Your task to perform on an android device: open chrome privacy settings Image 0: 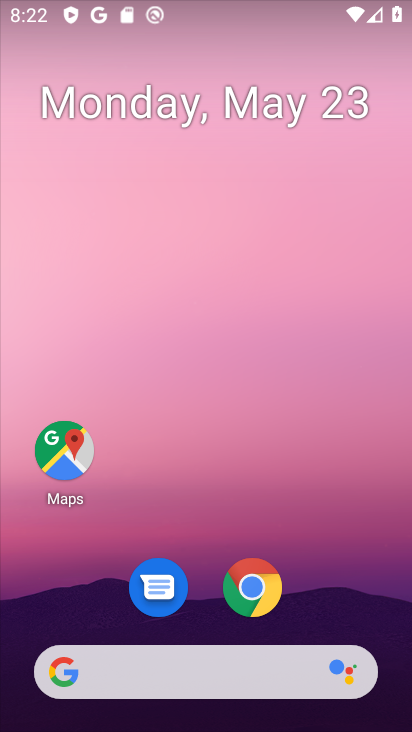
Step 0: click (301, 14)
Your task to perform on an android device: open chrome privacy settings Image 1: 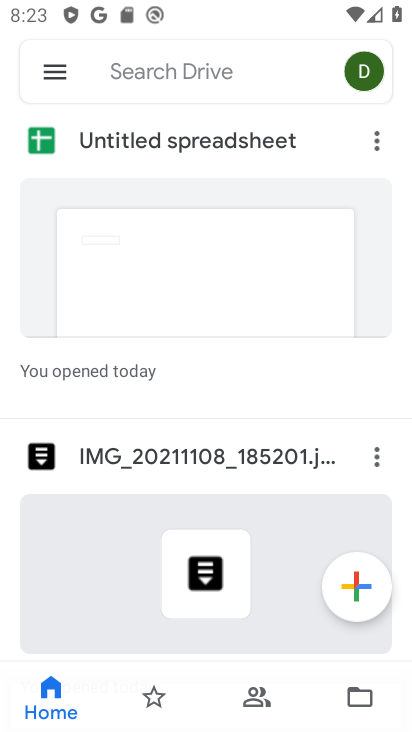
Step 1: press home button
Your task to perform on an android device: open chrome privacy settings Image 2: 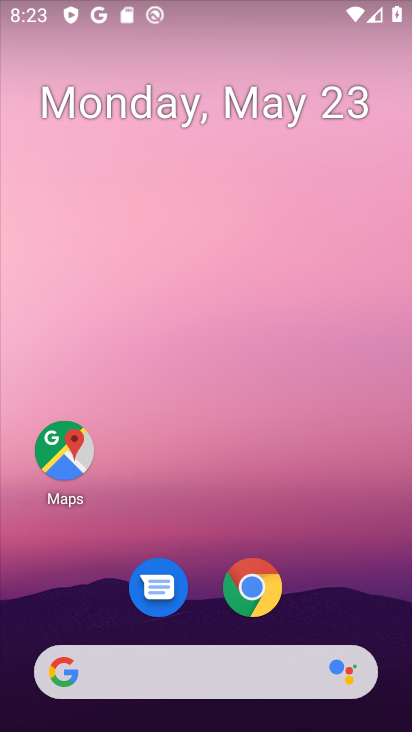
Step 2: click (258, 576)
Your task to perform on an android device: open chrome privacy settings Image 3: 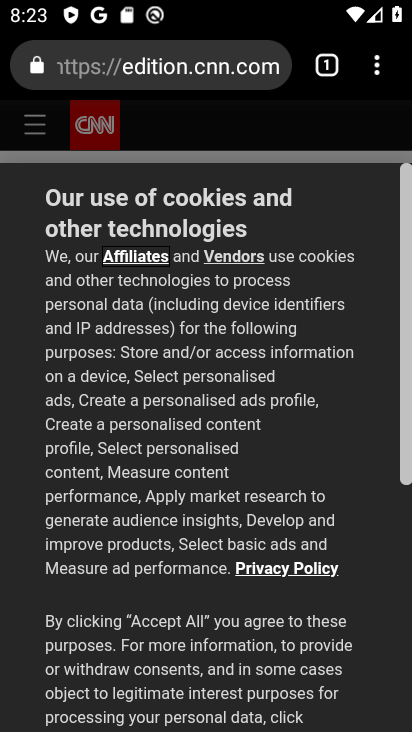
Step 3: drag from (380, 54) to (182, 632)
Your task to perform on an android device: open chrome privacy settings Image 4: 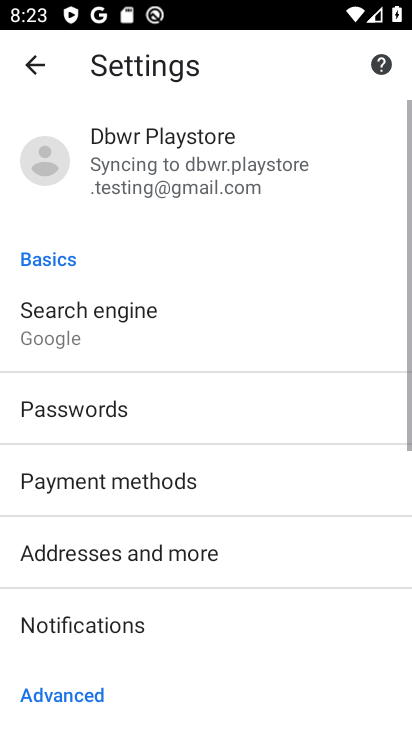
Step 4: drag from (178, 617) to (294, 94)
Your task to perform on an android device: open chrome privacy settings Image 5: 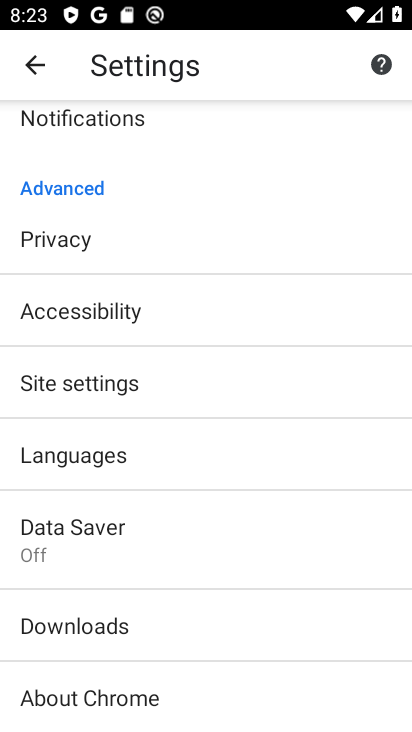
Step 5: click (58, 223)
Your task to perform on an android device: open chrome privacy settings Image 6: 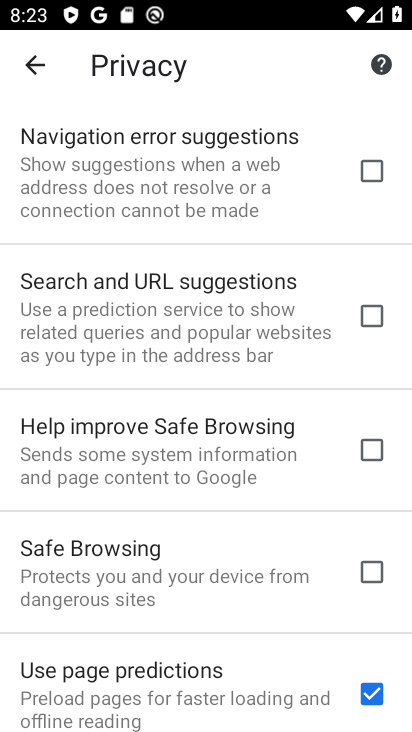
Step 6: task complete